Your task to perform on an android device: Show me popular games on the Play Store Image 0: 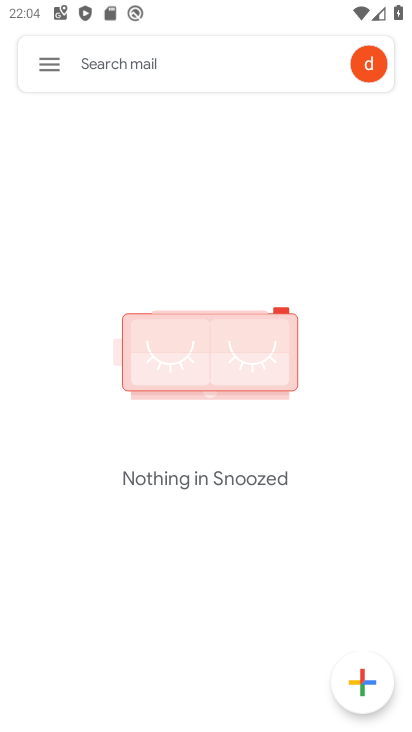
Step 0: press home button
Your task to perform on an android device: Show me popular games on the Play Store Image 1: 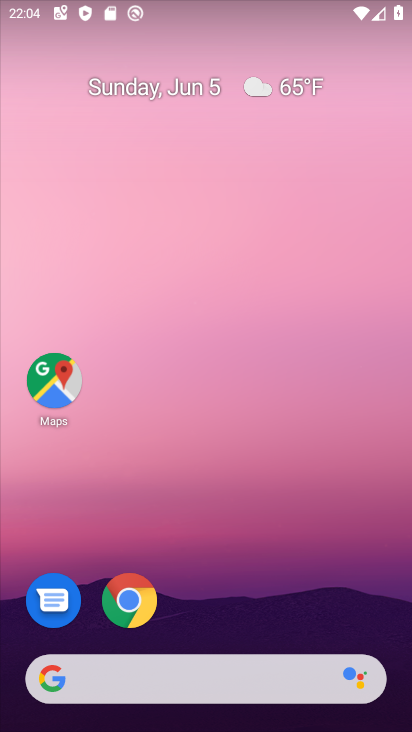
Step 1: drag from (335, 558) to (288, 142)
Your task to perform on an android device: Show me popular games on the Play Store Image 2: 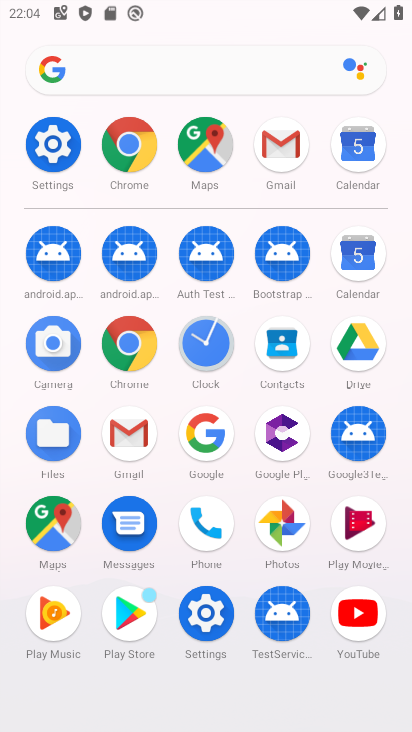
Step 2: click (136, 604)
Your task to perform on an android device: Show me popular games on the Play Store Image 3: 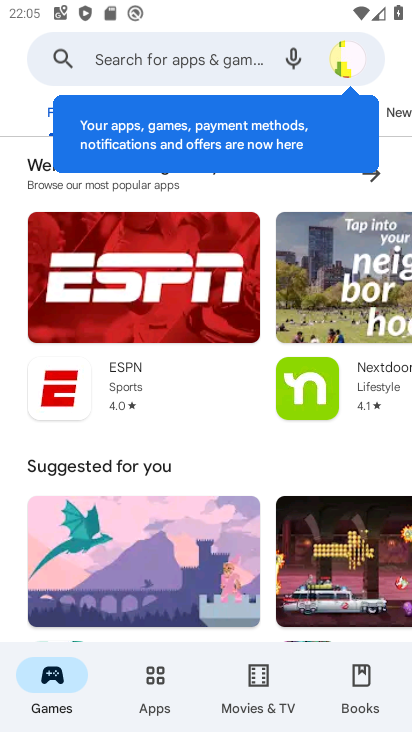
Step 3: drag from (185, 558) to (262, 236)
Your task to perform on an android device: Show me popular games on the Play Store Image 4: 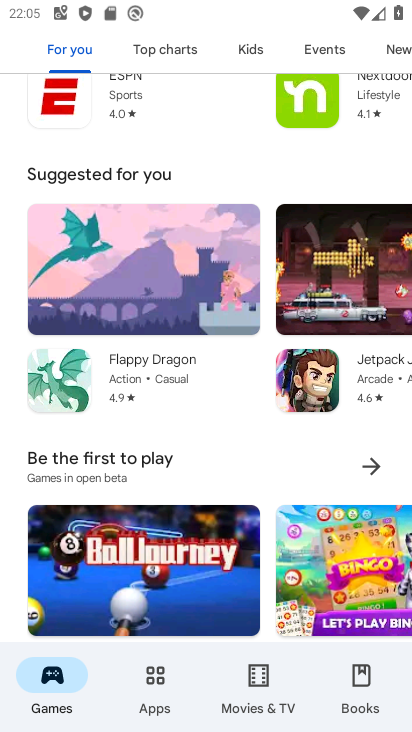
Step 4: drag from (186, 594) to (290, 232)
Your task to perform on an android device: Show me popular games on the Play Store Image 5: 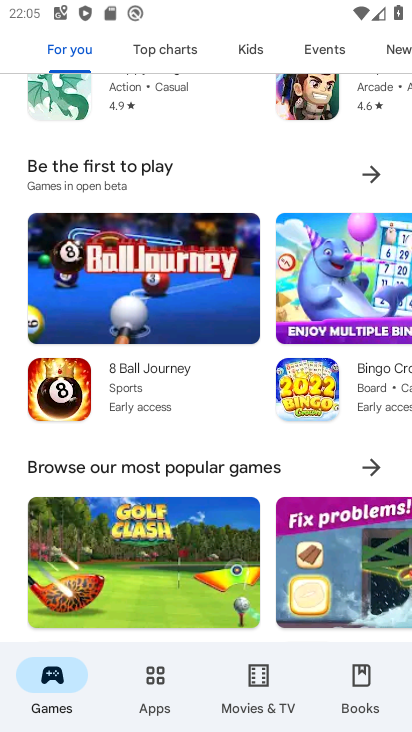
Step 5: drag from (170, 586) to (273, 302)
Your task to perform on an android device: Show me popular games on the Play Store Image 6: 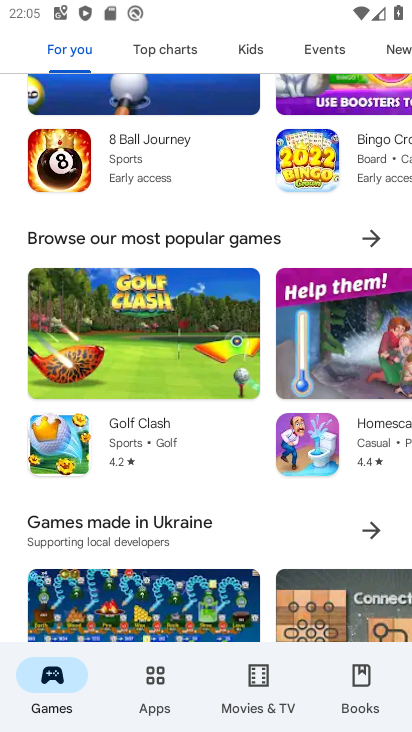
Step 6: drag from (173, 618) to (322, 288)
Your task to perform on an android device: Show me popular games on the Play Store Image 7: 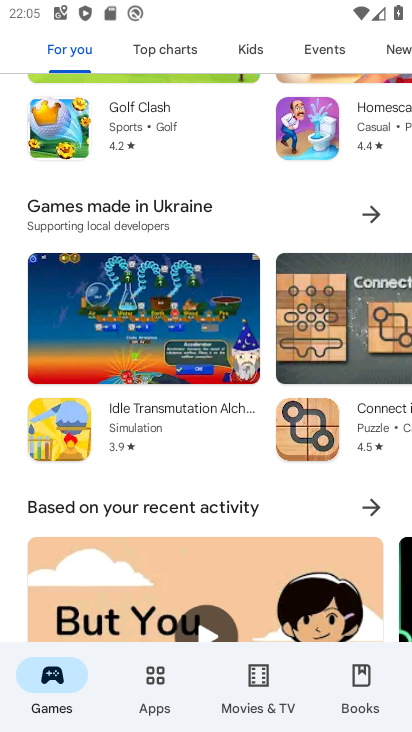
Step 7: drag from (345, 606) to (385, 139)
Your task to perform on an android device: Show me popular games on the Play Store Image 8: 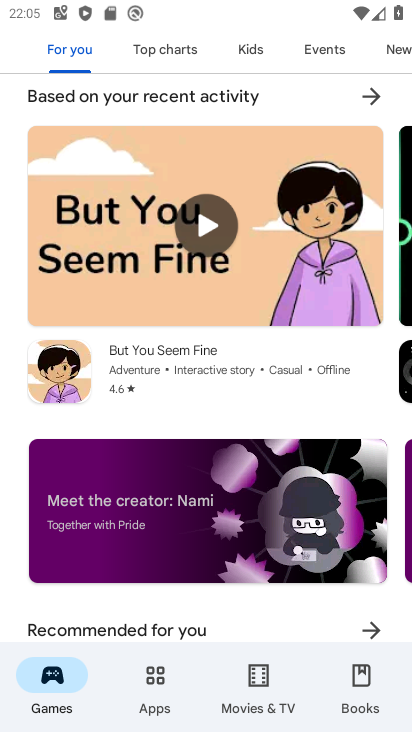
Step 8: drag from (295, 610) to (390, 228)
Your task to perform on an android device: Show me popular games on the Play Store Image 9: 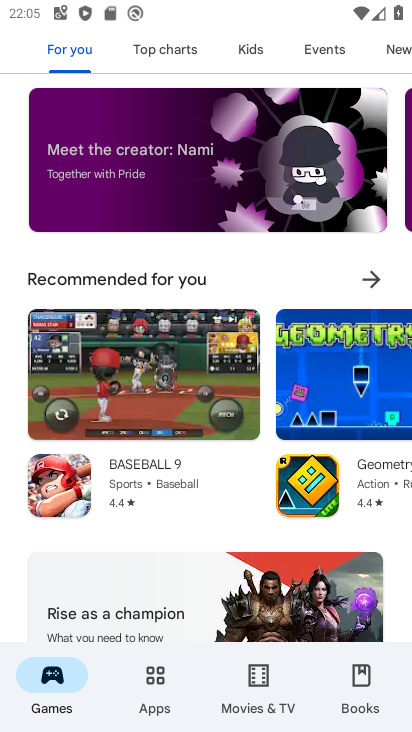
Step 9: drag from (249, 618) to (328, 239)
Your task to perform on an android device: Show me popular games on the Play Store Image 10: 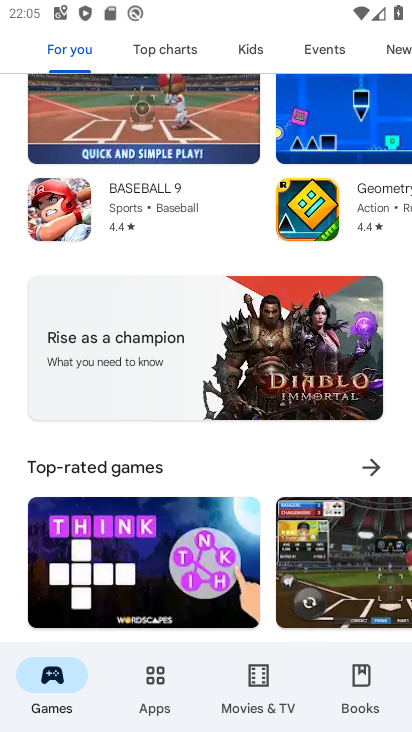
Step 10: drag from (308, 571) to (388, 141)
Your task to perform on an android device: Show me popular games on the Play Store Image 11: 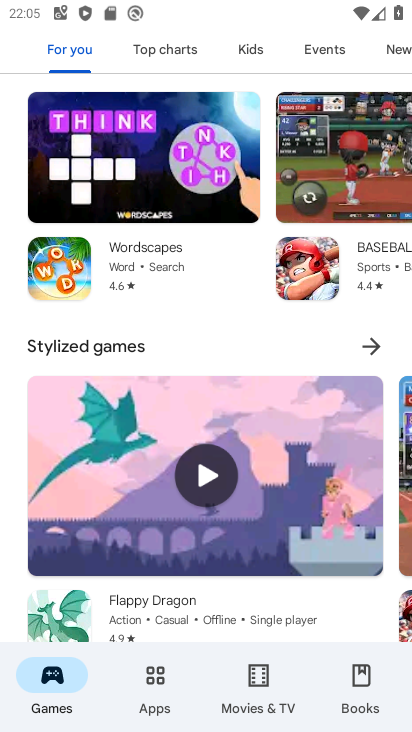
Step 11: drag from (213, 629) to (308, 167)
Your task to perform on an android device: Show me popular games on the Play Store Image 12: 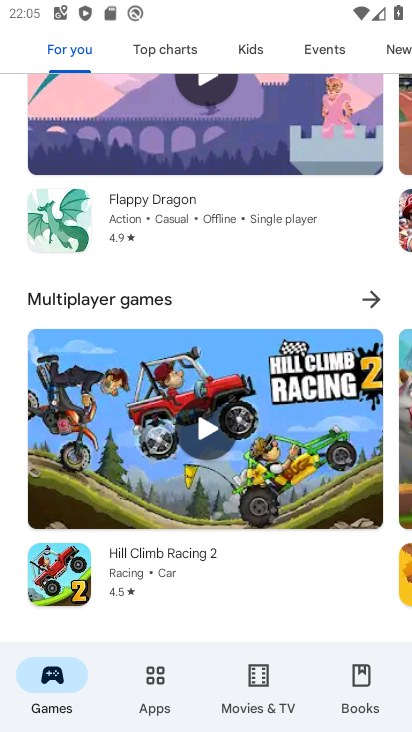
Step 12: drag from (235, 593) to (349, 180)
Your task to perform on an android device: Show me popular games on the Play Store Image 13: 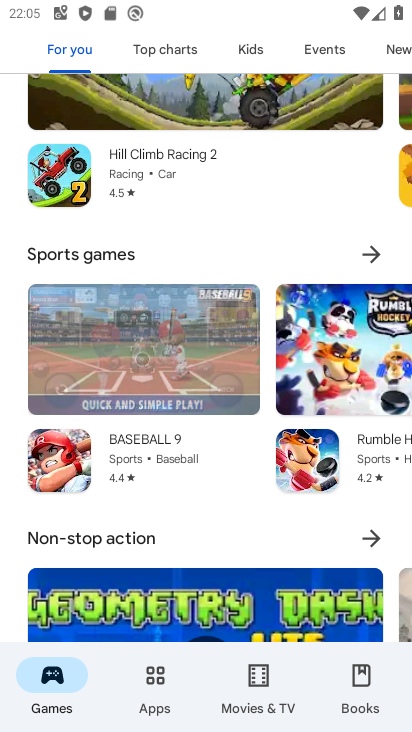
Step 13: drag from (218, 588) to (320, 162)
Your task to perform on an android device: Show me popular games on the Play Store Image 14: 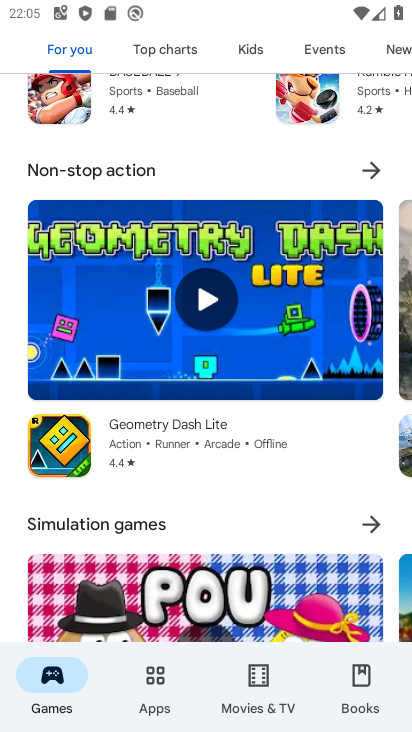
Step 14: drag from (207, 603) to (313, 191)
Your task to perform on an android device: Show me popular games on the Play Store Image 15: 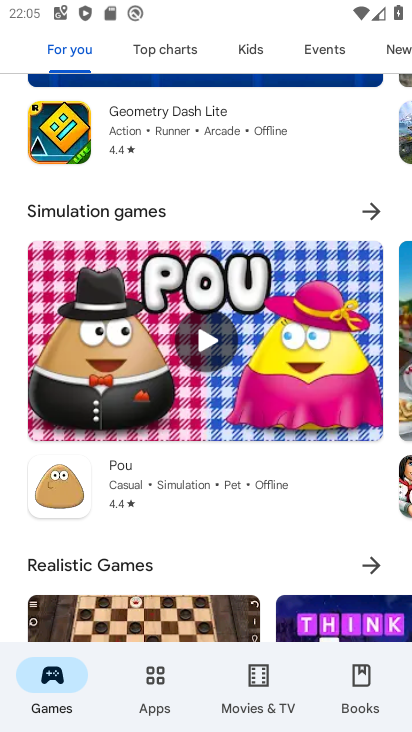
Step 15: drag from (195, 611) to (293, 291)
Your task to perform on an android device: Show me popular games on the Play Store Image 16: 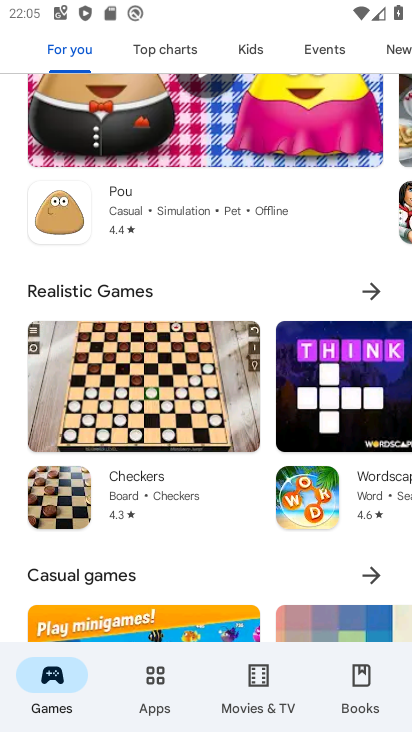
Step 16: drag from (266, 566) to (345, 96)
Your task to perform on an android device: Show me popular games on the Play Store Image 17: 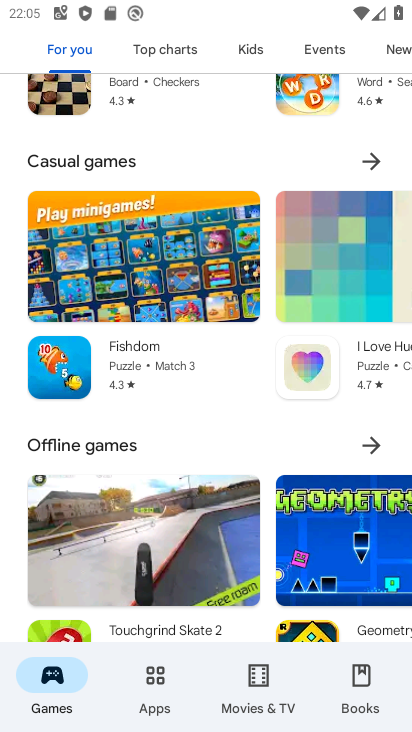
Step 17: drag from (261, 626) to (351, 130)
Your task to perform on an android device: Show me popular games on the Play Store Image 18: 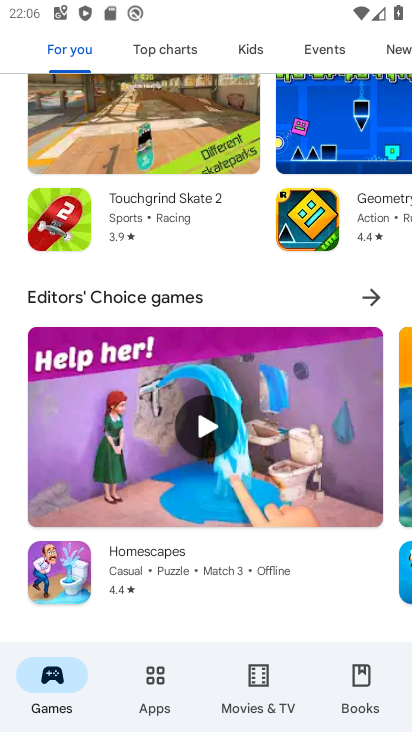
Step 18: drag from (377, 626) to (410, 210)
Your task to perform on an android device: Show me popular games on the Play Store Image 19: 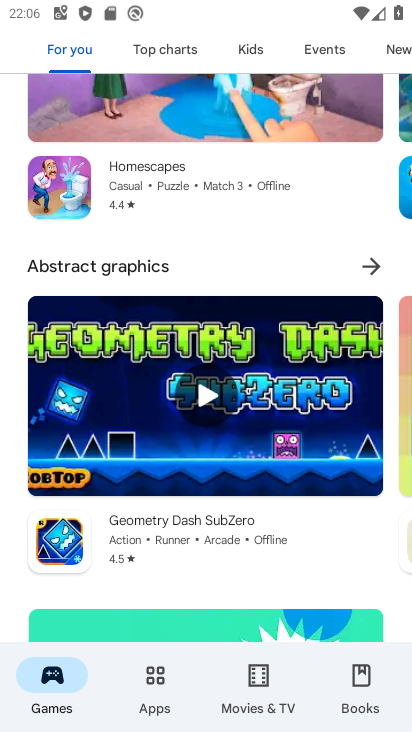
Step 19: drag from (314, 600) to (352, 308)
Your task to perform on an android device: Show me popular games on the Play Store Image 20: 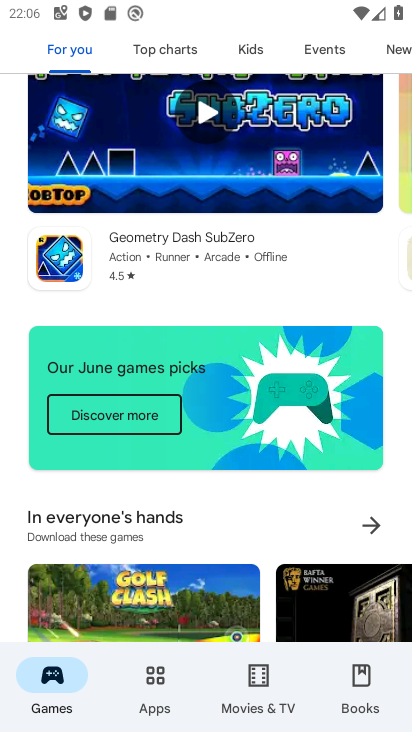
Step 20: click (346, 297)
Your task to perform on an android device: Show me popular games on the Play Store Image 21: 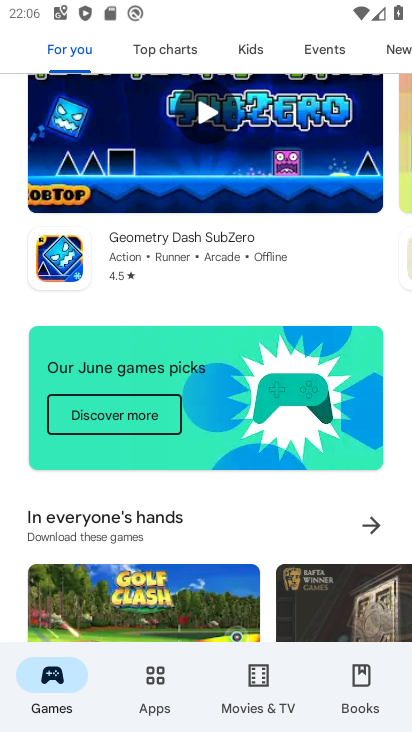
Step 21: drag from (270, 609) to (339, 325)
Your task to perform on an android device: Show me popular games on the Play Store Image 22: 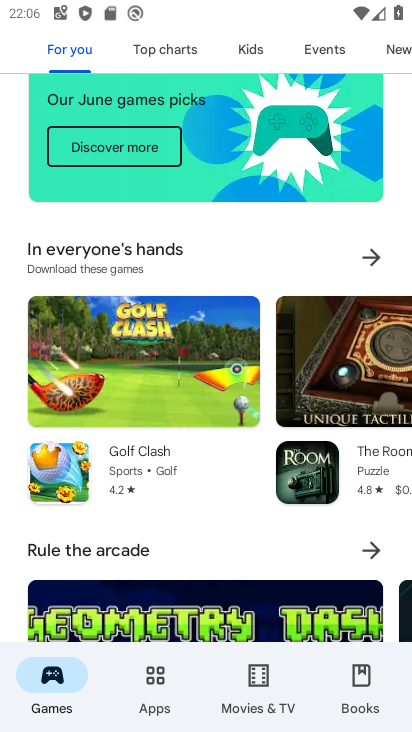
Step 22: drag from (289, 502) to (307, 80)
Your task to perform on an android device: Show me popular games on the Play Store Image 23: 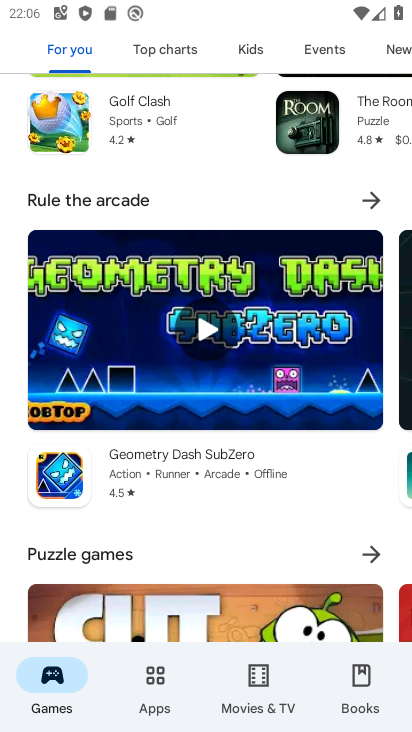
Step 23: drag from (253, 551) to (306, 176)
Your task to perform on an android device: Show me popular games on the Play Store Image 24: 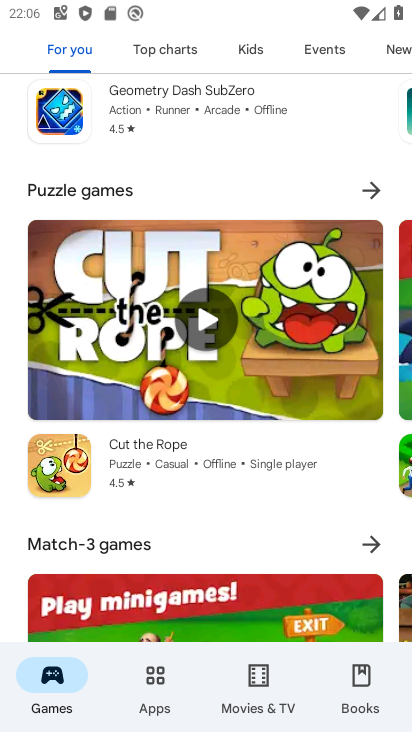
Step 24: drag from (255, 569) to (319, 285)
Your task to perform on an android device: Show me popular games on the Play Store Image 25: 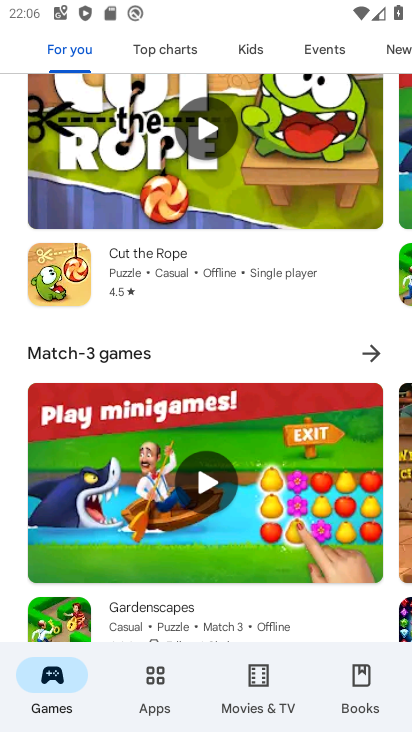
Step 25: click (330, 223)
Your task to perform on an android device: Show me popular games on the Play Store Image 26: 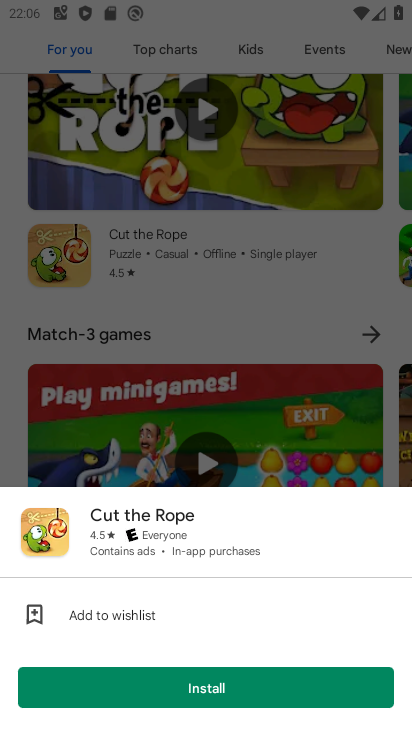
Step 26: click (344, 328)
Your task to perform on an android device: Show me popular games on the Play Store Image 27: 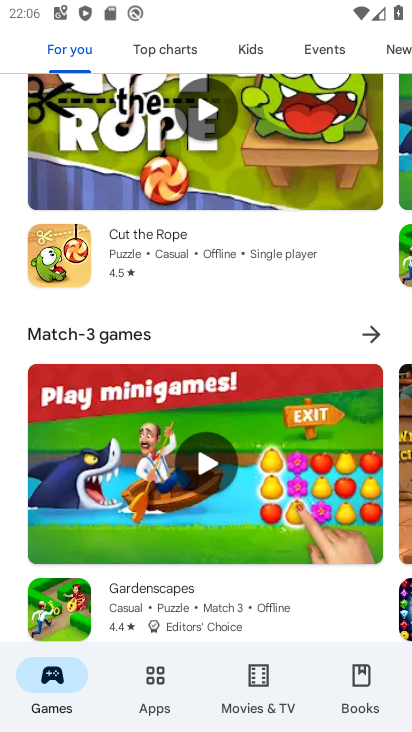
Step 27: task complete